Your task to perform on an android device: Open calendar and show me the first week of next month Image 0: 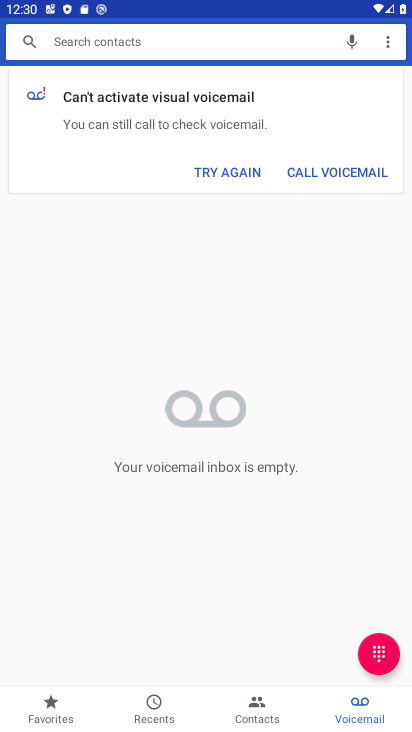
Step 0: press home button
Your task to perform on an android device: Open calendar and show me the first week of next month Image 1: 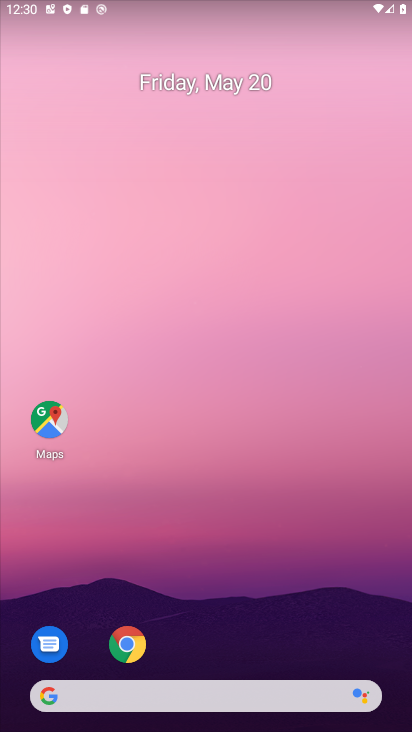
Step 1: drag from (268, 640) to (264, 9)
Your task to perform on an android device: Open calendar and show me the first week of next month Image 2: 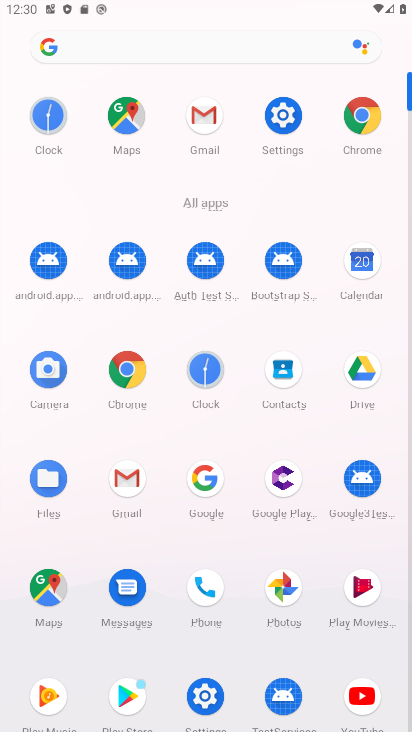
Step 2: click (363, 264)
Your task to perform on an android device: Open calendar and show me the first week of next month Image 3: 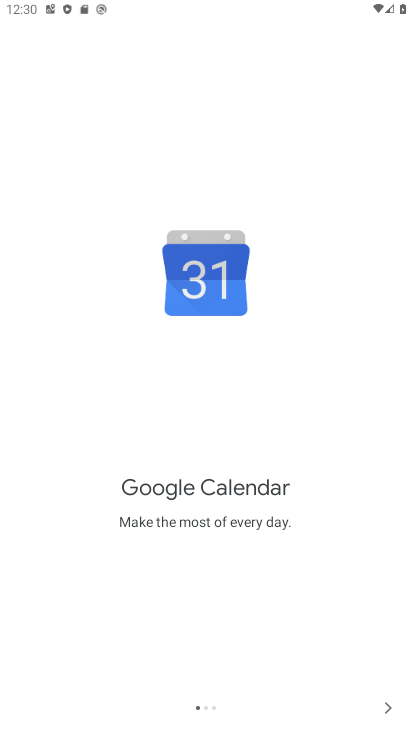
Step 3: click (387, 709)
Your task to perform on an android device: Open calendar and show me the first week of next month Image 4: 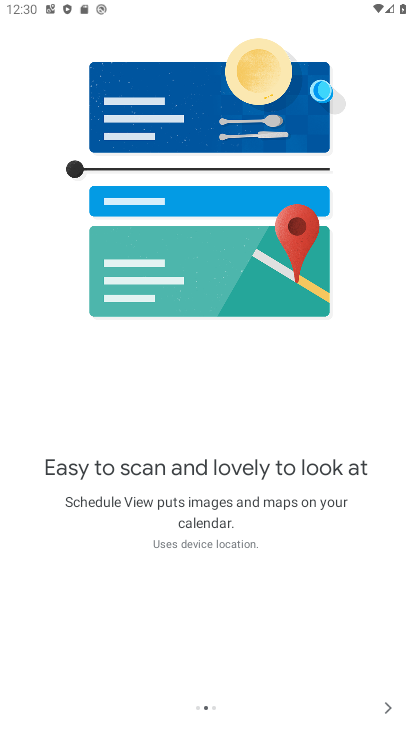
Step 4: click (387, 709)
Your task to perform on an android device: Open calendar and show me the first week of next month Image 5: 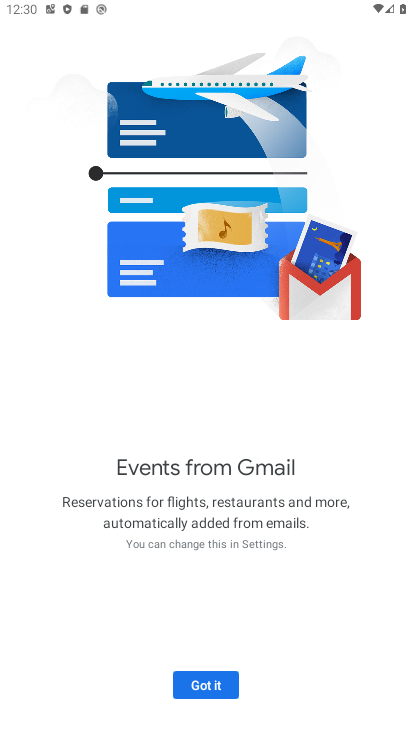
Step 5: click (202, 695)
Your task to perform on an android device: Open calendar and show me the first week of next month Image 6: 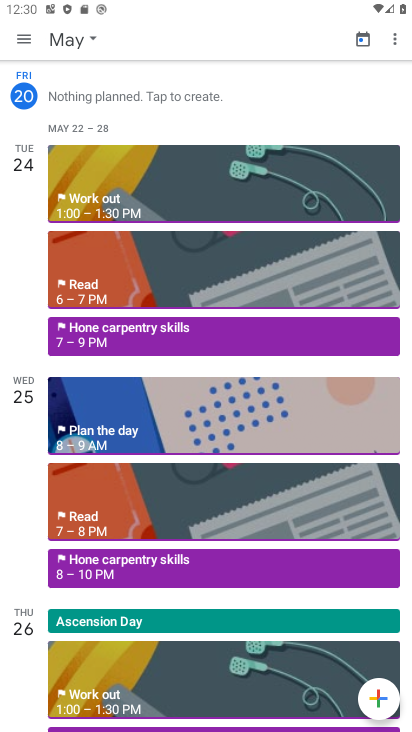
Step 6: click (90, 43)
Your task to perform on an android device: Open calendar and show me the first week of next month Image 7: 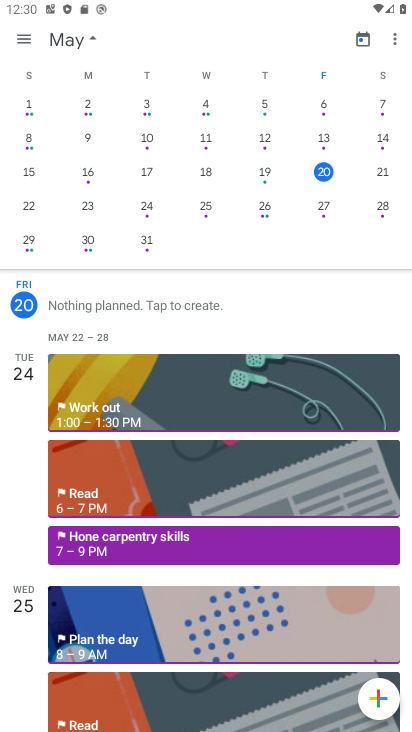
Step 7: click (90, 41)
Your task to perform on an android device: Open calendar and show me the first week of next month Image 8: 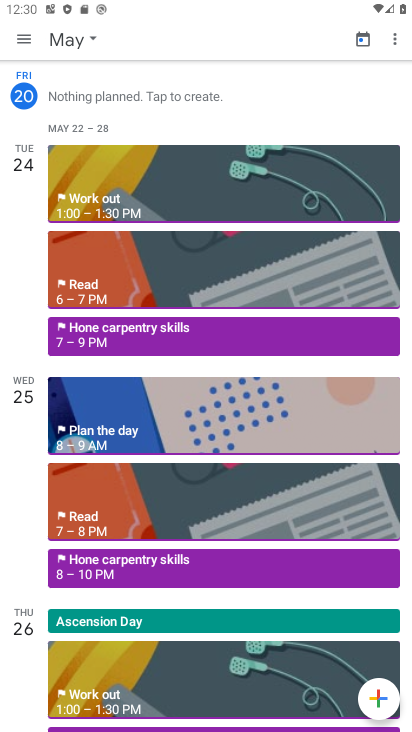
Step 8: click (90, 41)
Your task to perform on an android device: Open calendar and show me the first week of next month Image 9: 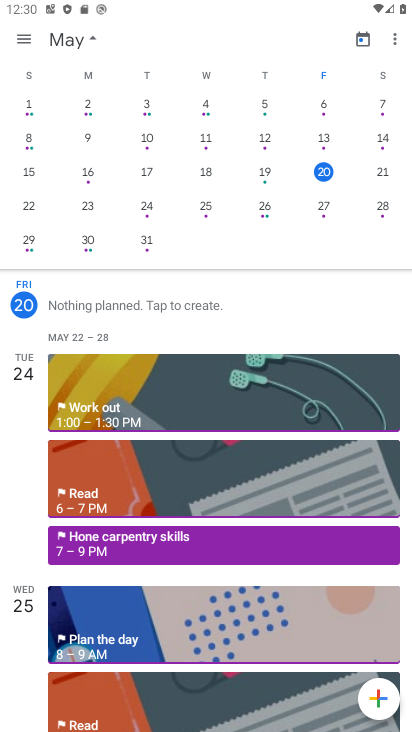
Step 9: drag from (156, 160) to (7, 94)
Your task to perform on an android device: Open calendar and show me the first week of next month Image 10: 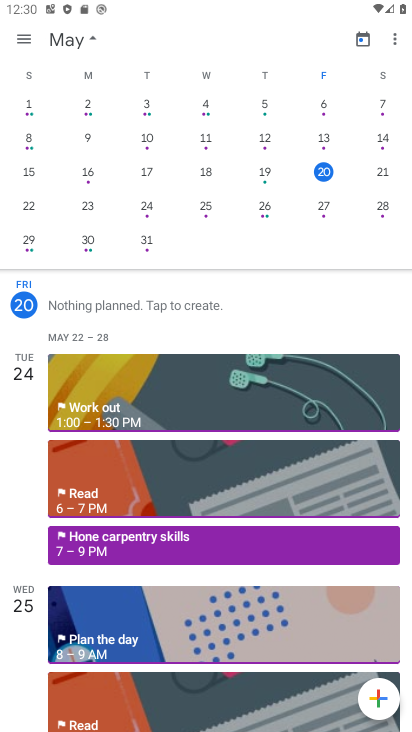
Step 10: drag from (377, 172) to (5, 151)
Your task to perform on an android device: Open calendar and show me the first week of next month Image 11: 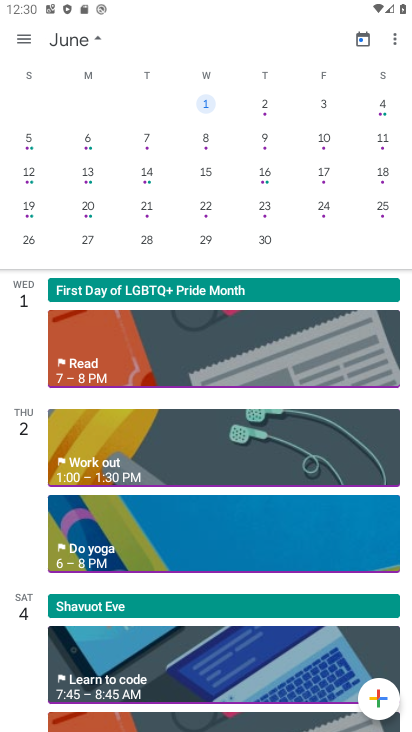
Step 11: click (30, 37)
Your task to perform on an android device: Open calendar and show me the first week of next month Image 12: 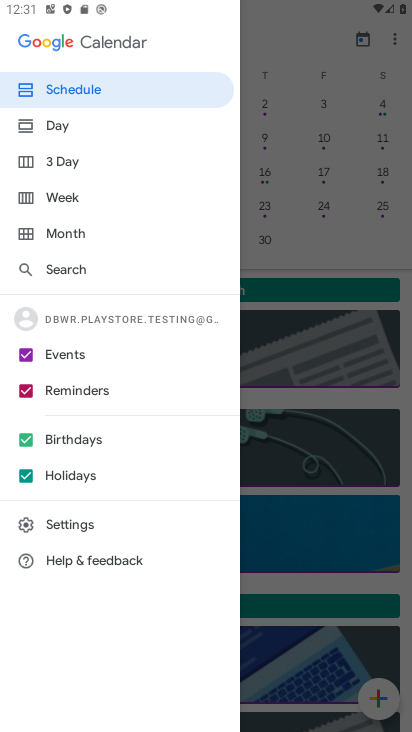
Step 12: click (59, 197)
Your task to perform on an android device: Open calendar and show me the first week of next month Image 13: 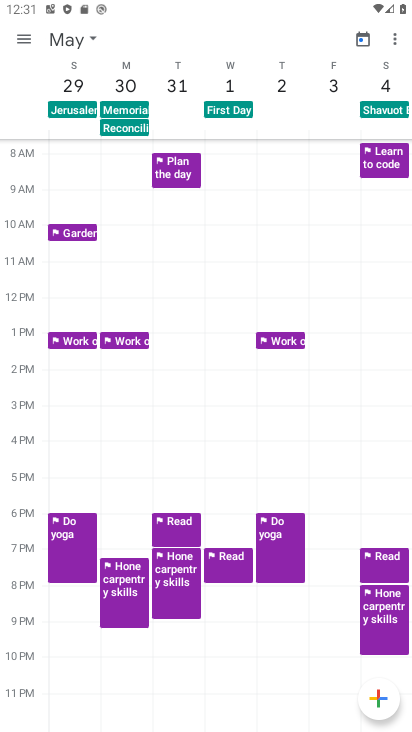
Step 13: task complete